Your task to perform on an android device: How much does a 2 bedroom apartment rent for in Boston? Image 0: 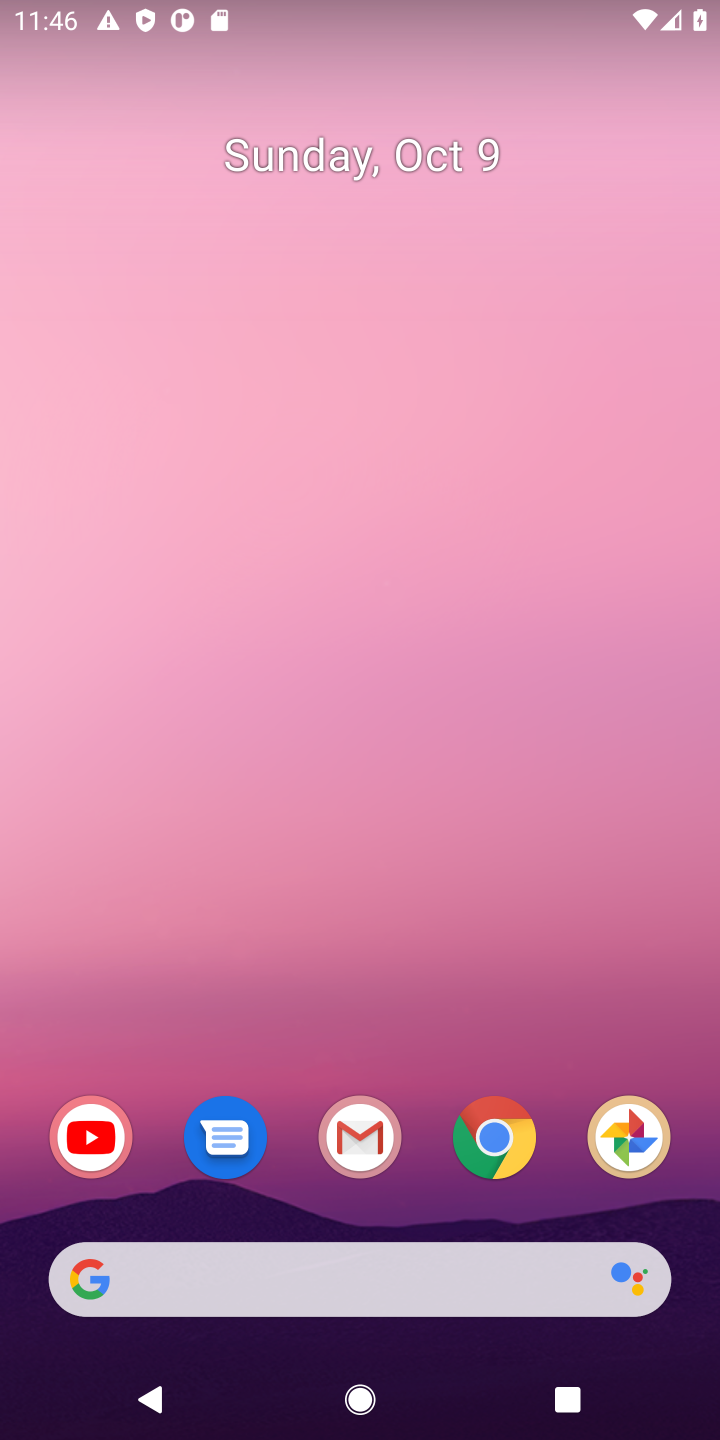
Step 0: drag from (431, 1007) to (442, 8)
Your task to perform on an android device: How much does a 2 bedroom apartment rent for in Boston? Image 1: 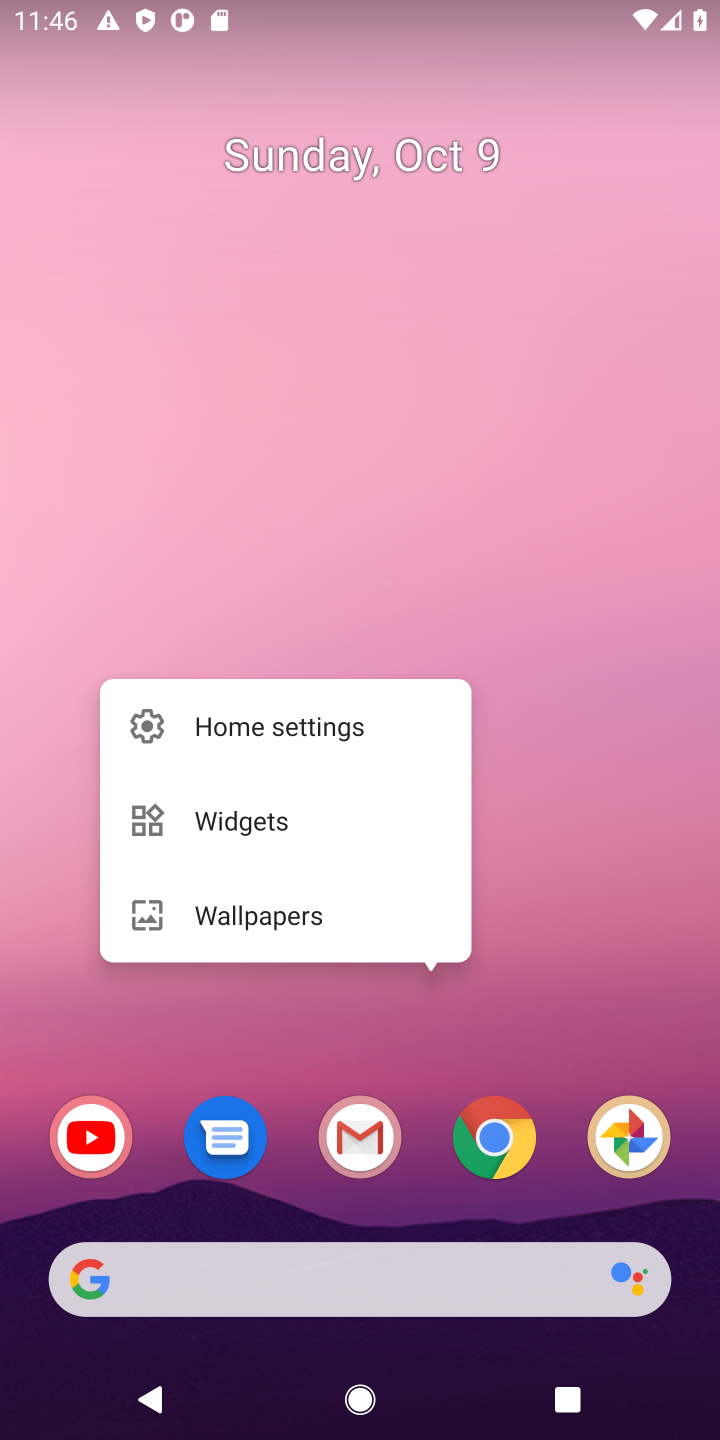
Step 1: click (594, 982)
Your task to perform on an android device: How much does a 2 bedroom apartment rent for in Boston? Image 2: 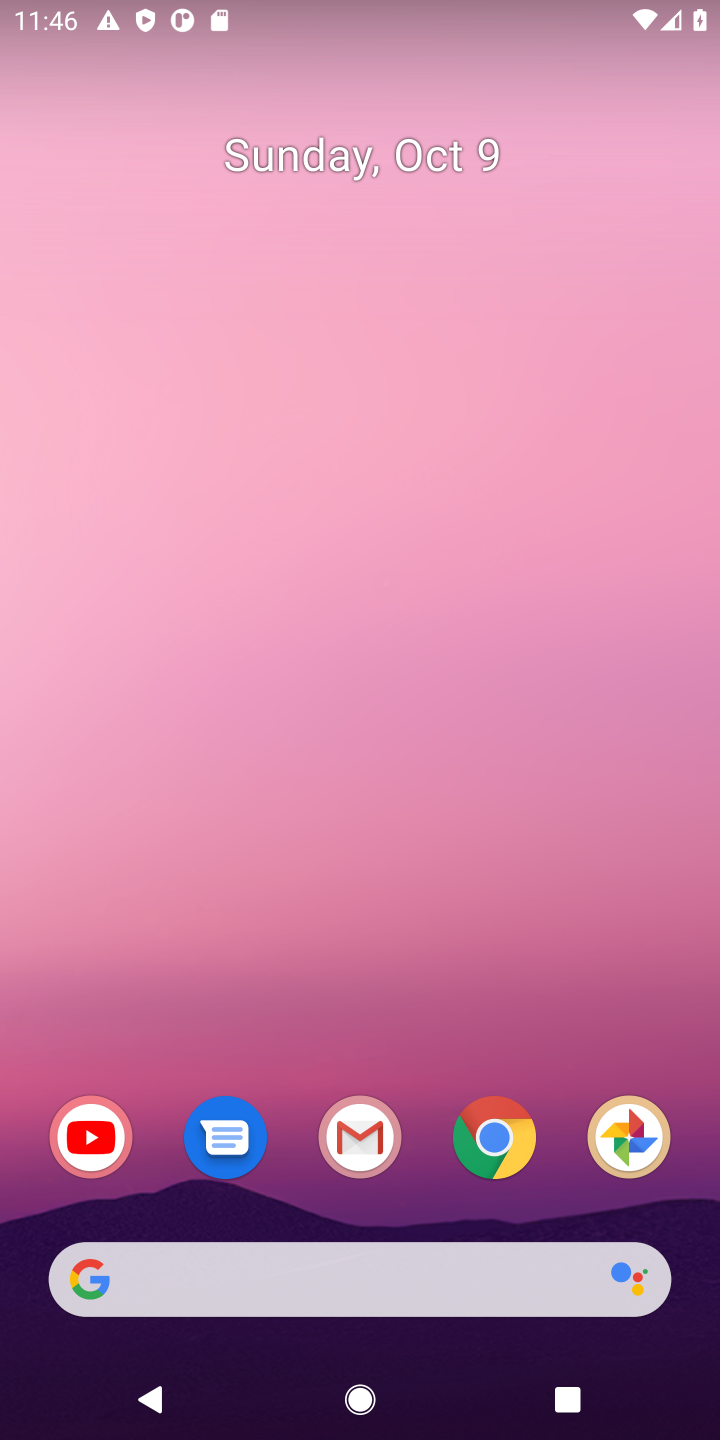
Step 2: drag from (541, 1089) to (398, 53)
Your task to perform on an android device: How much does a 2 bedroom apartment rent for in Boston? Image 3: 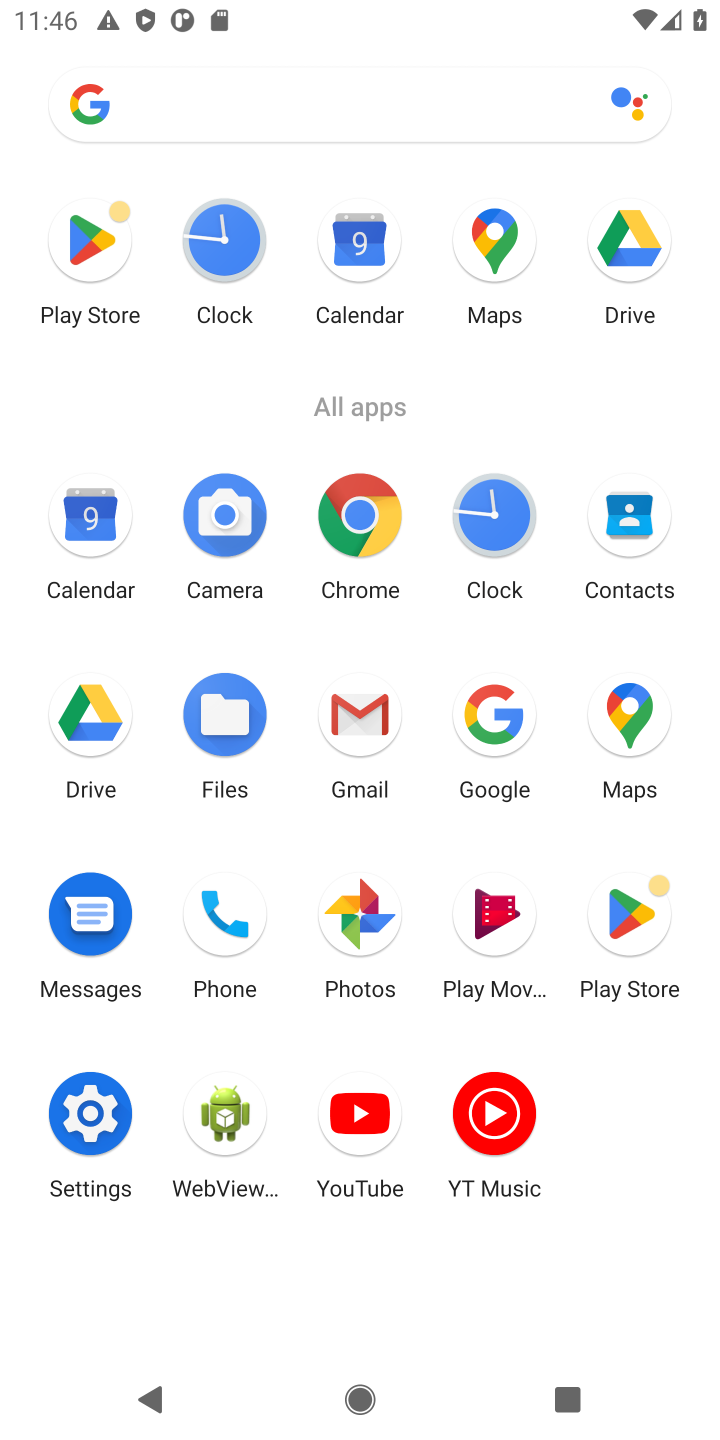
Step 3: click (367, 503)
Your task to perform on an android device: How much does a 2 bedroom apartment rent for in Boston? Image 4: 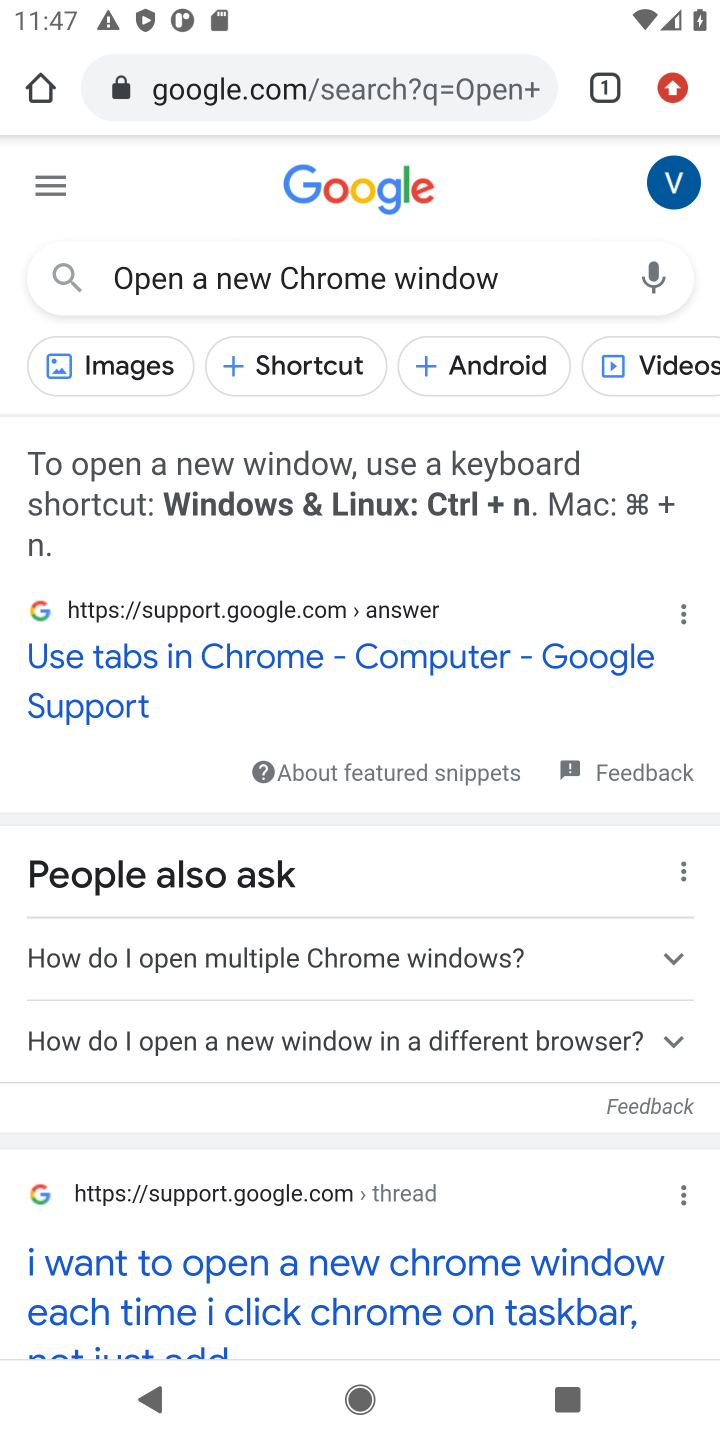
Step 4: task complete